Your task to perform on an android device: Do I have any events this weekend? Image 0: 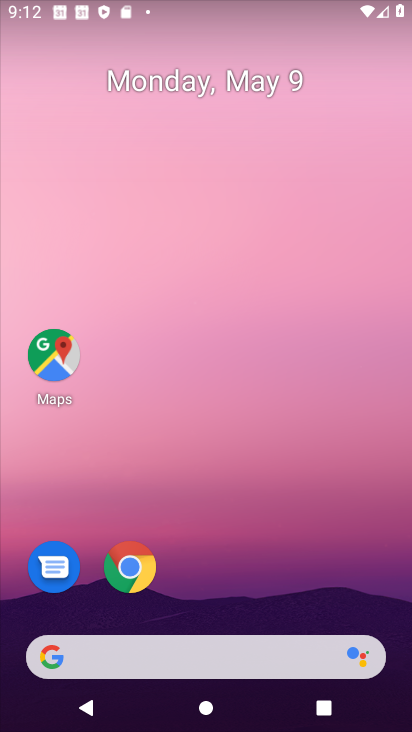
Step 0: drag from (200, 599) to (224, 149)
Your task to perform on an android device: Do I have any events this weekend? Image 1: 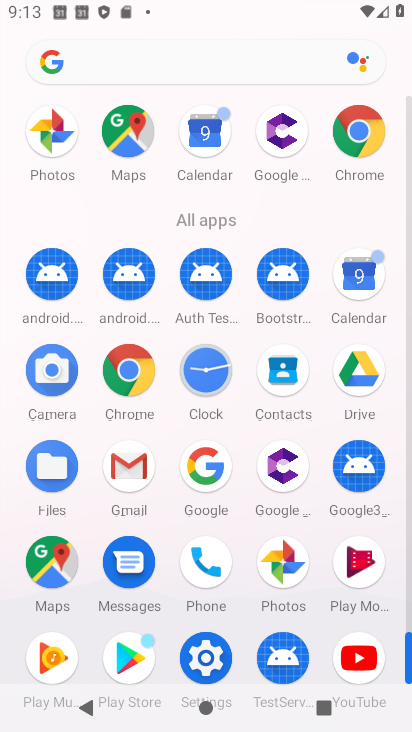
Step 1: click (363, 269)
Your task to perform on an android device: Do I have any events this weekend? Image 2: 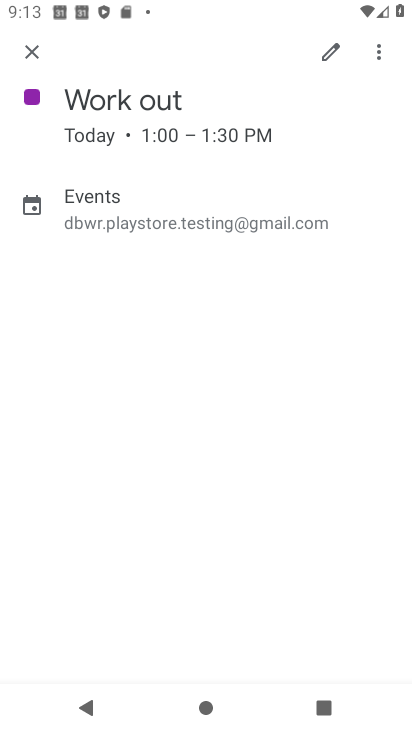
Step 2: click (27, 56)
Your task to perform on an android device: Do I have any events this weekend? Image 3: 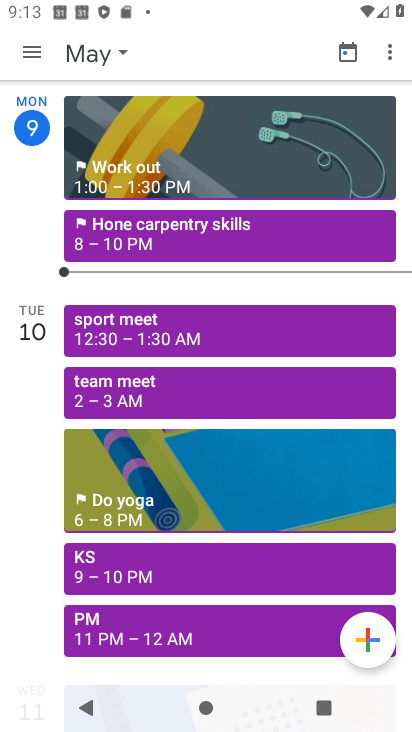
Step 3: click (114, 55)
Your task to perform on an android device: Do I have any events this weekend? Image 4: 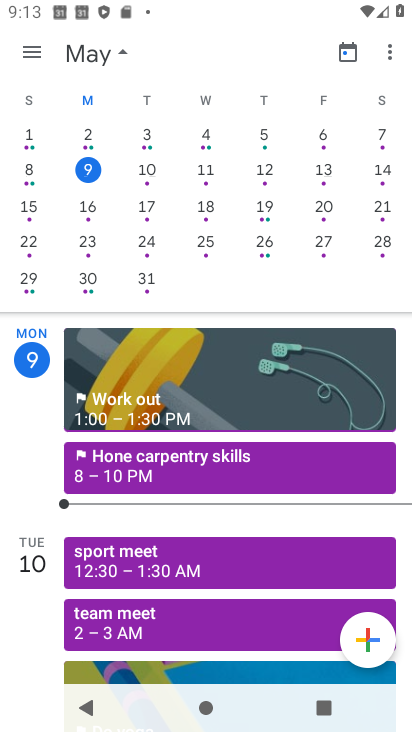
Step 4: click (385, 170)
Your task to perform on an android device: Do I have any events this weekend? Image 5: 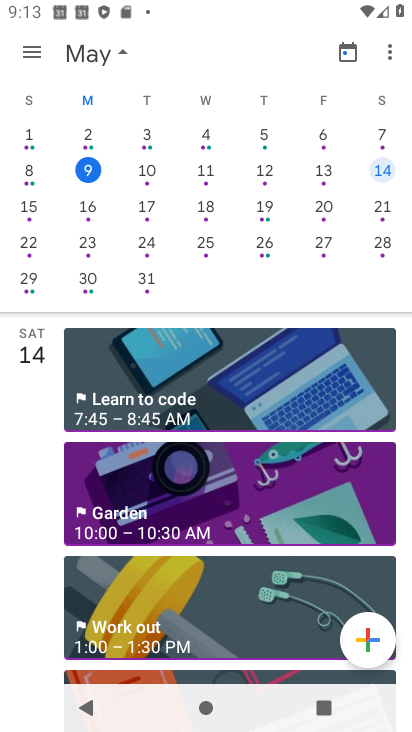
Step 5: click (387, 170)
Your task to perform on an android device: Do I have any events this weekend? Image 6: 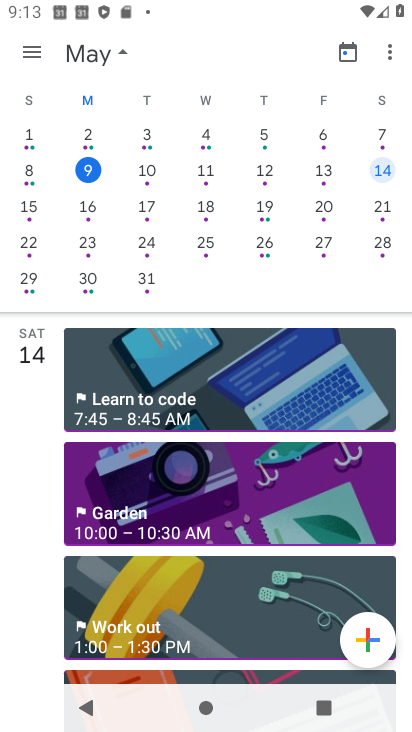
Step 6: task complete